Your task to perform on an android device: check storage Image 0: 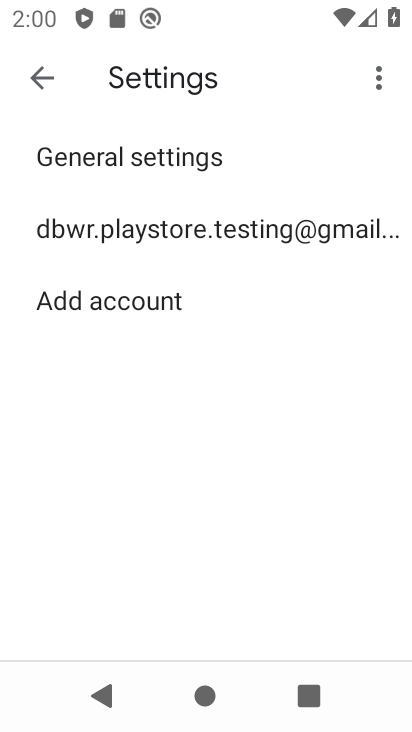
Step 0: press back button
Your task to perform on an android device: check storage Image 1: 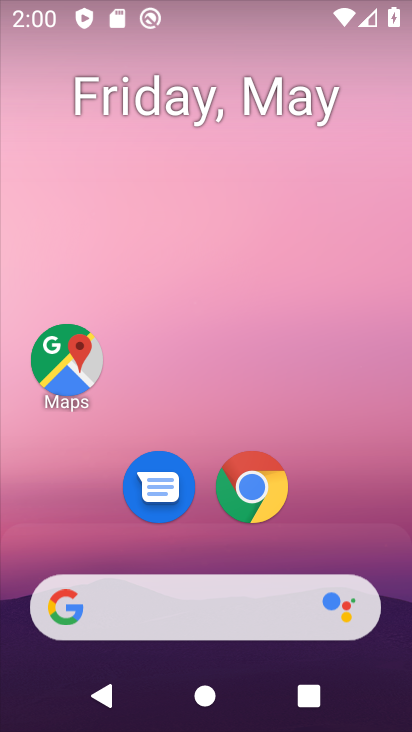
Step 1: drag from (237, 554) to (231, 2)
Your task to perform on an android device: check storage Image 2: 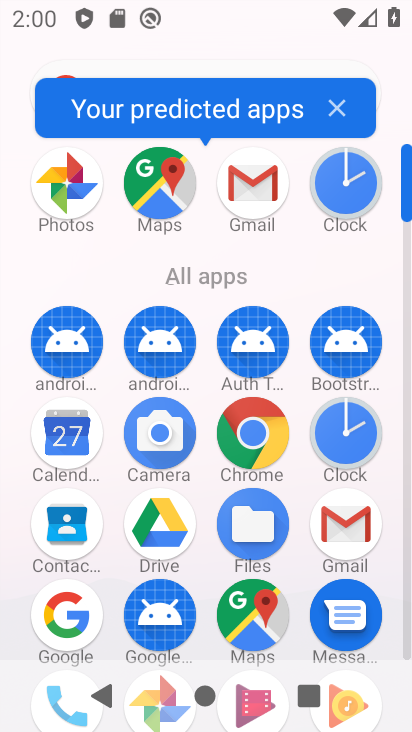
Step 2: drag from (174, 596) to (234, 32)
Your task to perform on an android device: check storage Image 3: 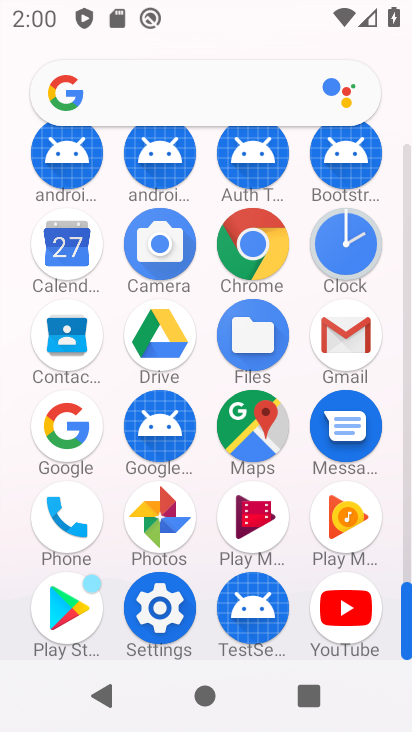
Step 3: click (160, 598)
Your task to perform on an android device: check storage Image 4: 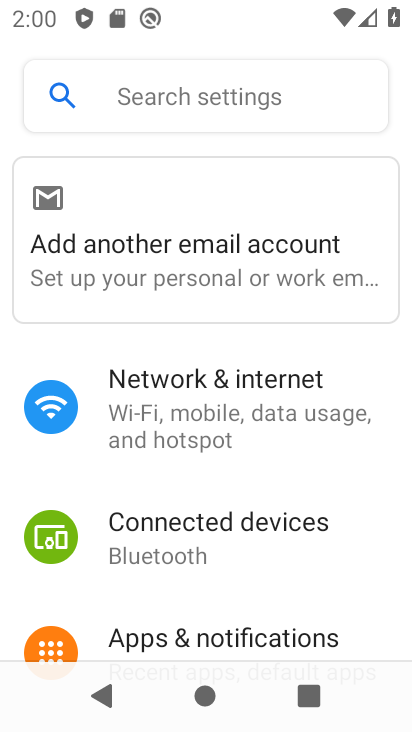
Step 4: drag from (187, 597) to (261, 114)
Your task to perform on an android device: check storage Image 5: 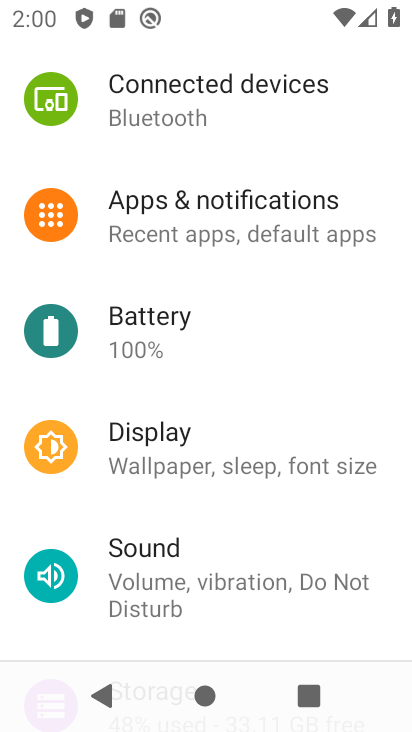
Step 5: drag from (169, 570) to (237, 156)
Your task to perform on an android device: check storage Image 6: 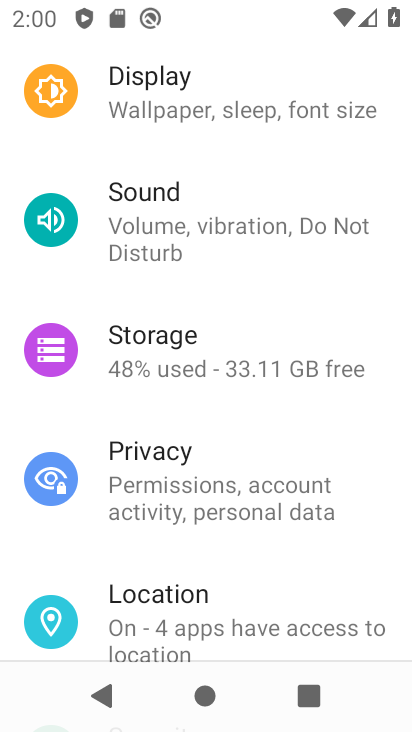
Step 6: click (182, 353)
Your task to perform on an android device: check storage Image 7: 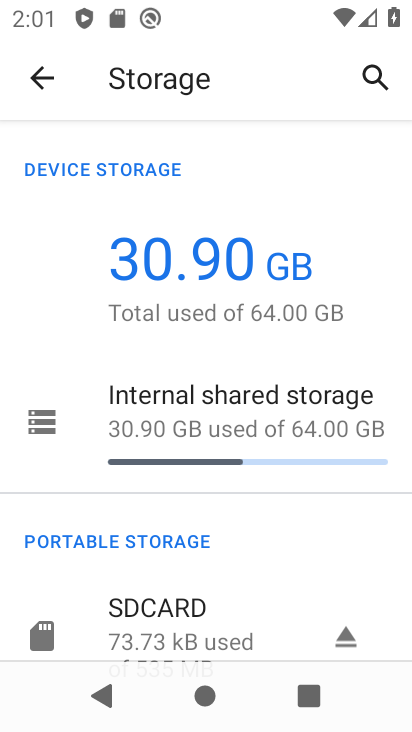
Step 7: task complete